Your task to perform on an android device: Open Youtube and go to "Your channel" Image 0: 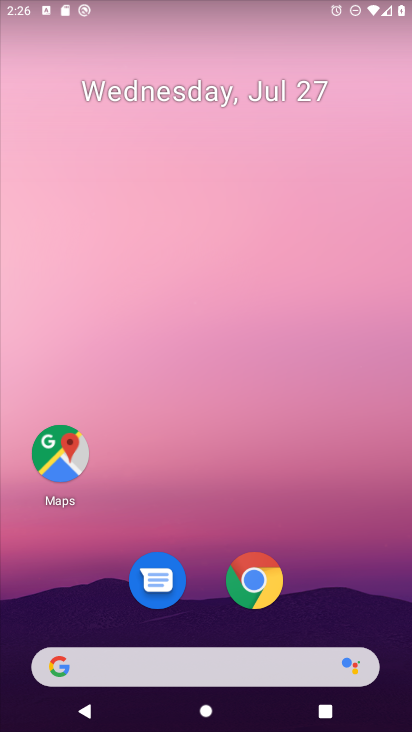
Step 0: drag from (247, 688) to (219, 133)
Your task to perform on an android device: Open Youtube and go to "Your channel" Image 1: 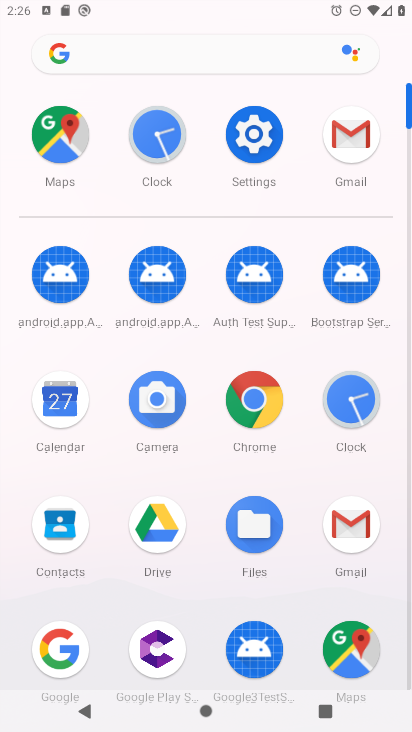
Step 1: drag from (293, 588) to (268, 404)
Your task to perform on an android device: Open Youtube and go to "Your channel" Image 2: 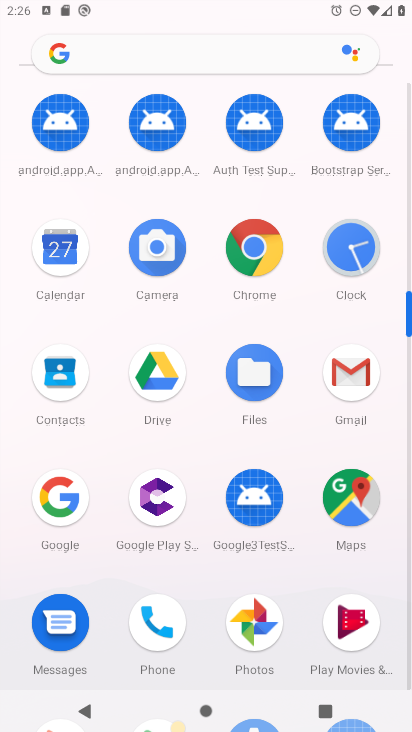
Step 2: drag from (306, 618) to (302, 420)
Your task to perform on an android device: Open Youtube and go to "Your channel" Image 3: 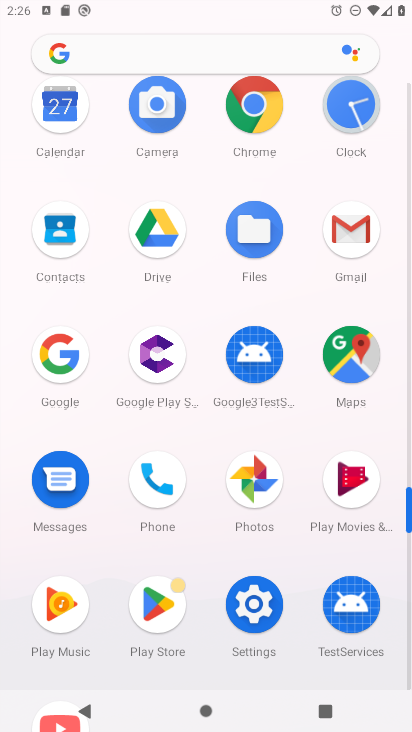
Step 3: drag from (109, 559) to (114, 445)
Your task to perform on an android device: Open Youtube and go to "Your channel" Image 4: 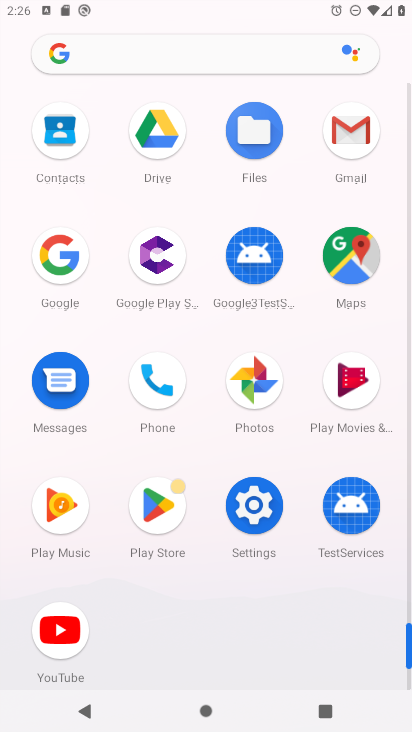
Step 4: click (48, 646)
Your task to perform on an android device: Open Youtube and go to "Your channel" Image 5: 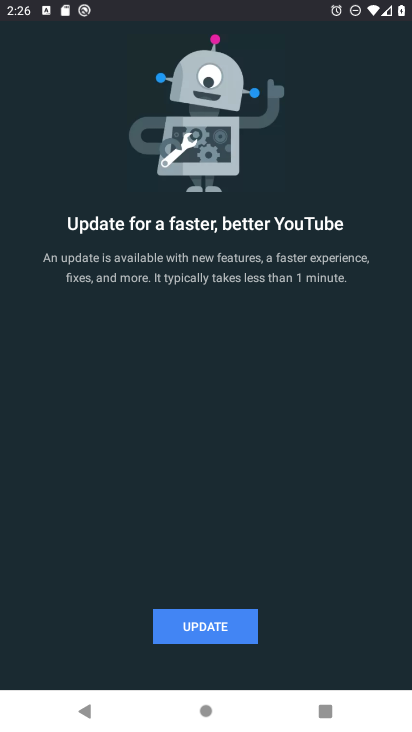
Step 5: click (223, 600)
Your task to perform on an android device: Open Youtube and go to "Your channel" Image 6: 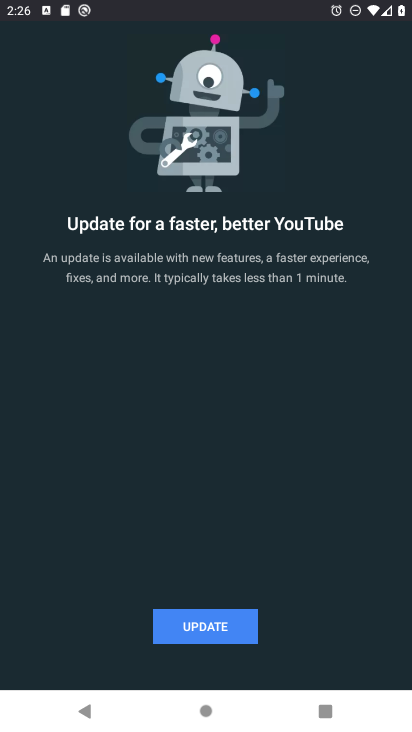
Step 6: click (213, 624)
Your task to perform on an android device: Open Youtube and go to "Your channel" Image 7: 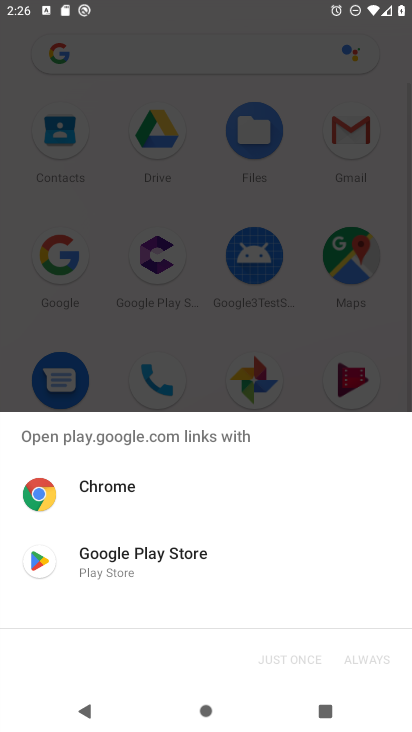
Step 7: click (181, 571)
Your task to perform on an android device: Open Youtube and go to "Your channel" Image 8: 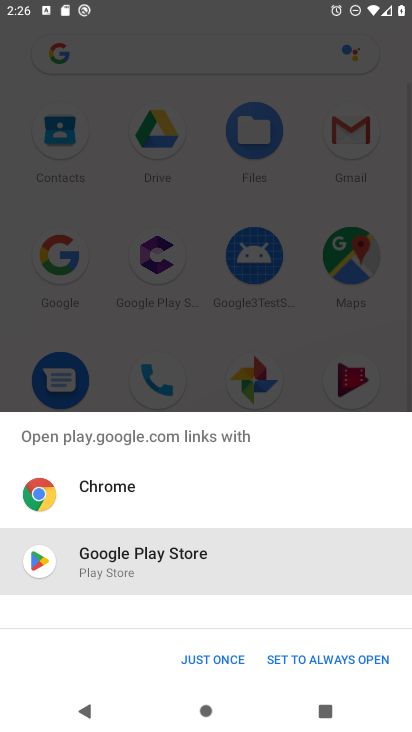
Step 8: click (217, 666)
Your task to perform on an android device: Open Youtube and go to "Your channel" Image 9: 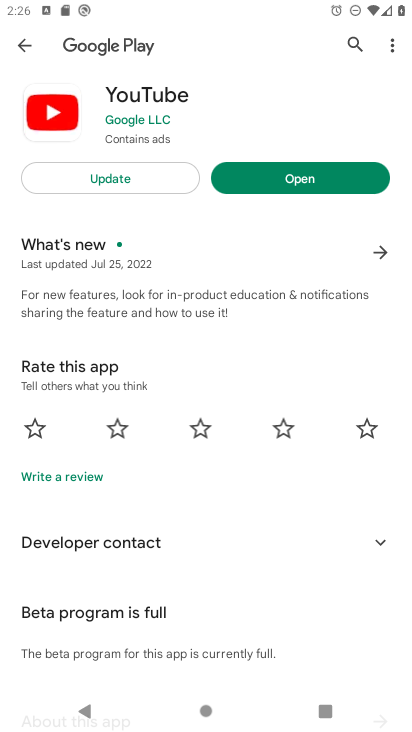
Step 9: click (122, 177)
Your task to perform on an android device: Open Youtube and go to "Your channel" Image 10: 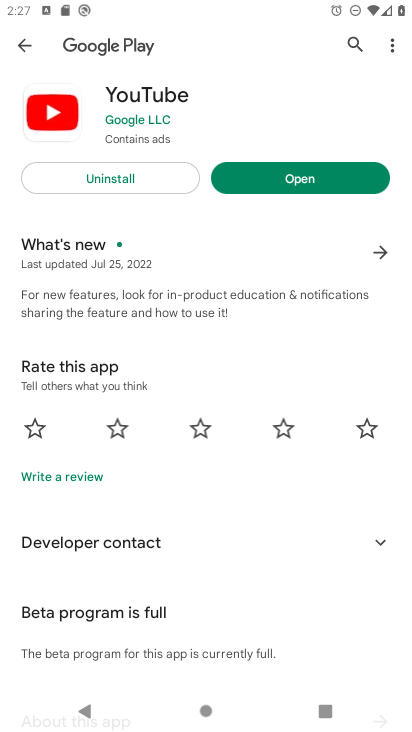
Step 10: click (276, 184)
Your task to perform on an android device: Open Youtube and go to "Your channel" Image 11: 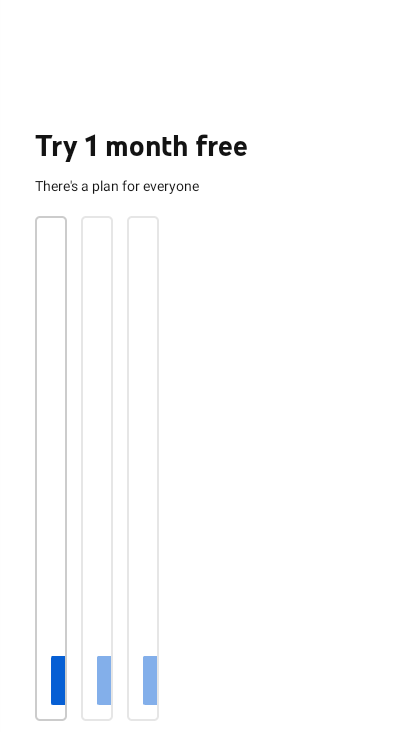
Step 11: click (383, 55)
Your task to perform on an android device: Open Youtube and go to "Your channel" Image 12: 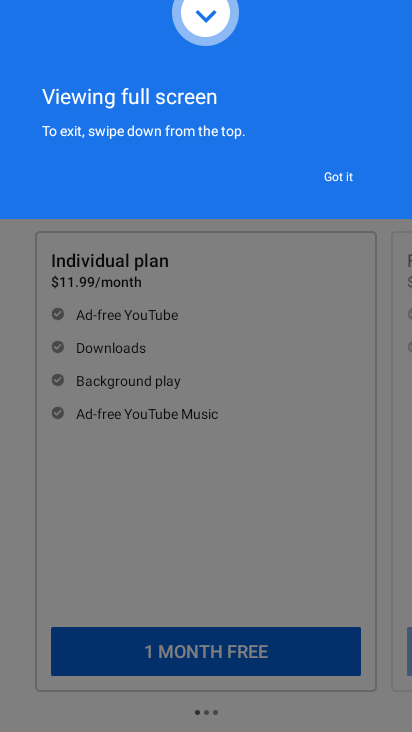
Step 12: click (342, 173)
Your task to perform on an android device: Open Youtube and go to "Your channel" Image 13: 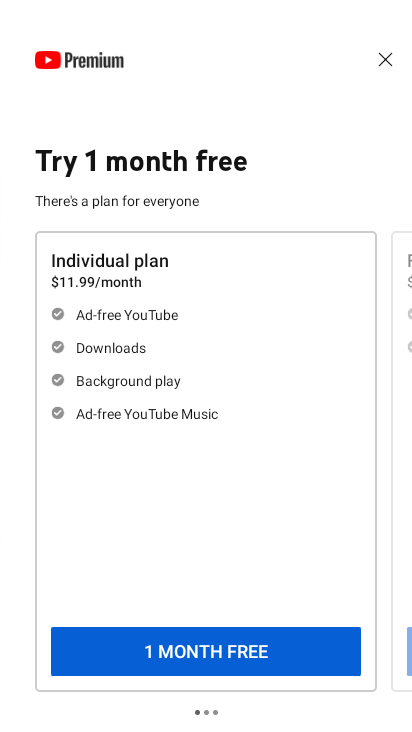
Step 13: click (385, 66)
Your task to perform on an android device: Open Youtube and go to "Your channel" Image 14: 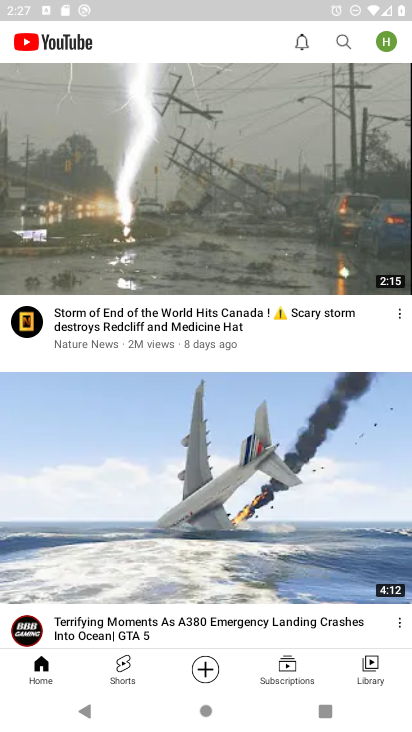
Step 14: click (370, 56)
Your task to perform on an android device: Open Youtube and go to "Your channel" Image 15: 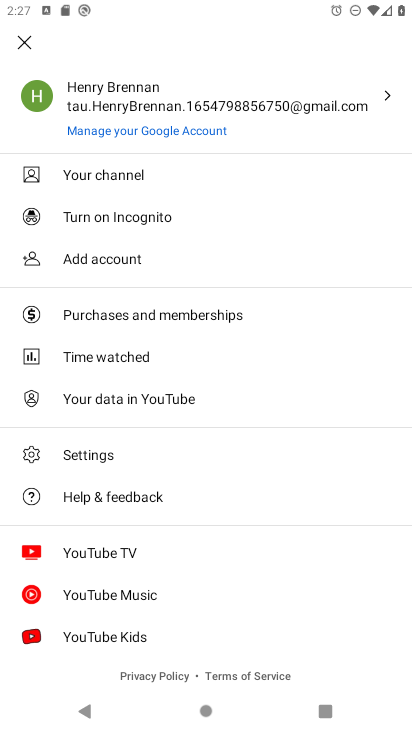
Step 15: click (143, 173)
Your task to perform on an android device: Open Youtube and go to "Your channel" Image 16: 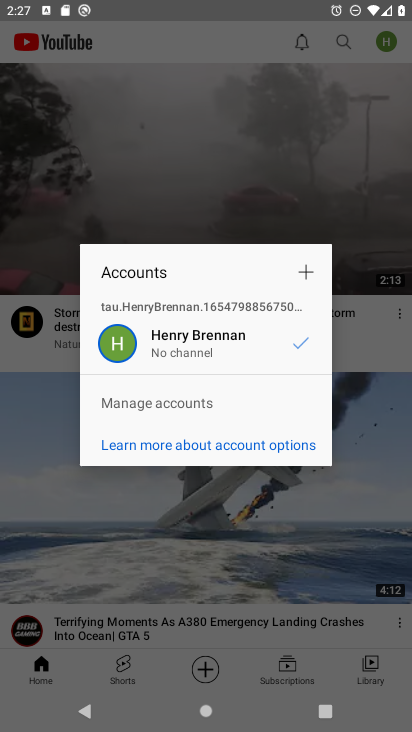
Step 16: task complete